Your task to perform on an android device: Check the weather Image 0: 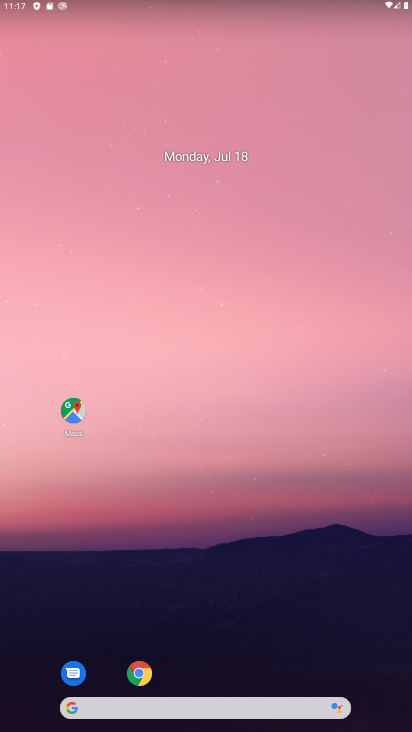
Step 0: press home button
Your task to perform on an android device: Check the weather Image 1: 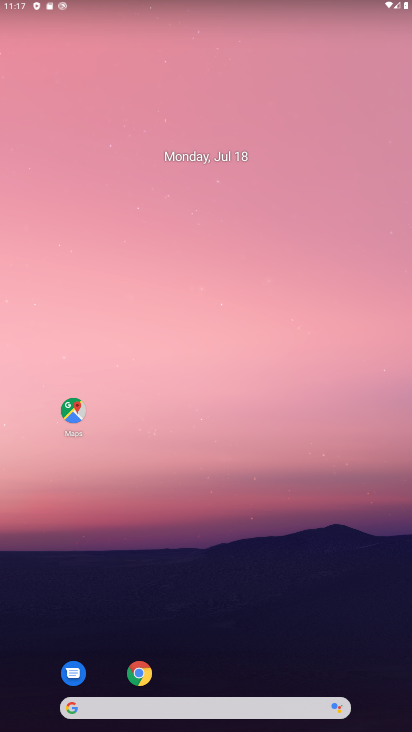
Step 1: click (158, 707)
Your task to perform on an android device: Check the weather Image 2: 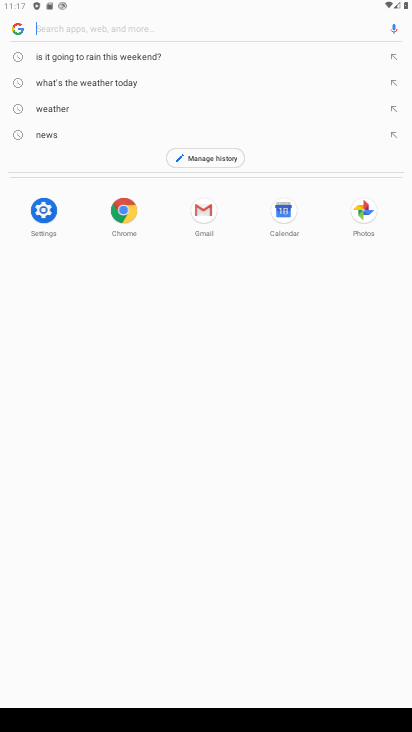
Step 2: click (73, 107)
Your task to perform on an android device: Check the weather Image 3: 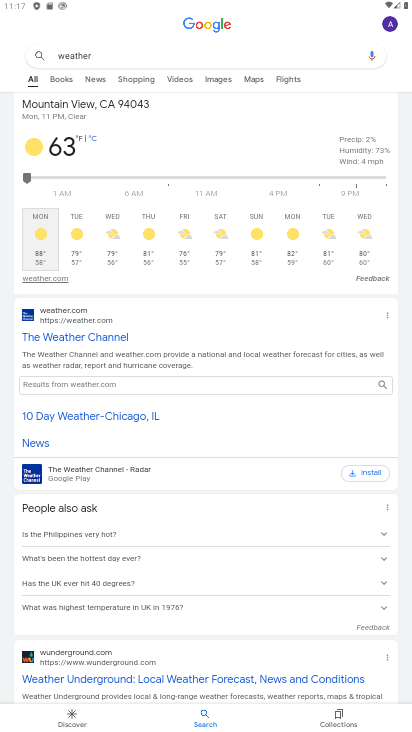
Step 3: click (71, 227)
Your task to perform on an android device: Check the weather Image 4: 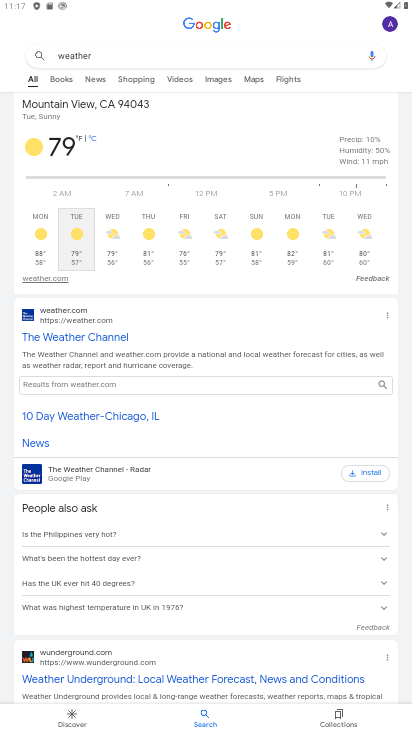
Step 4: task complete